Your task to perform on an android device: Search for a coffee table on Crate & Barrel Image 0: 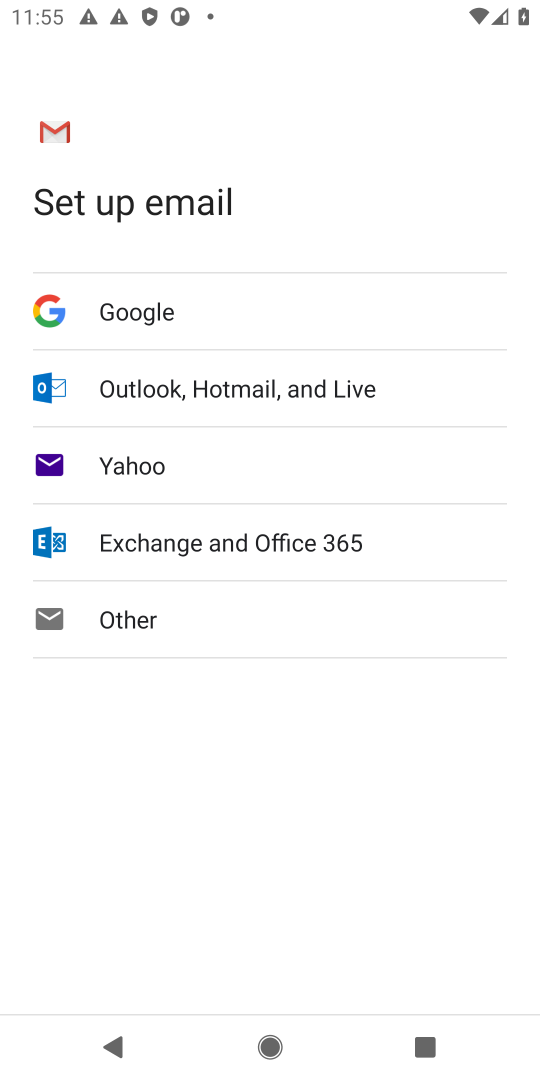
Step 0: press home button
Your task to perform on an android device: Search for a coffee table on Crate & Barrel Image 1: 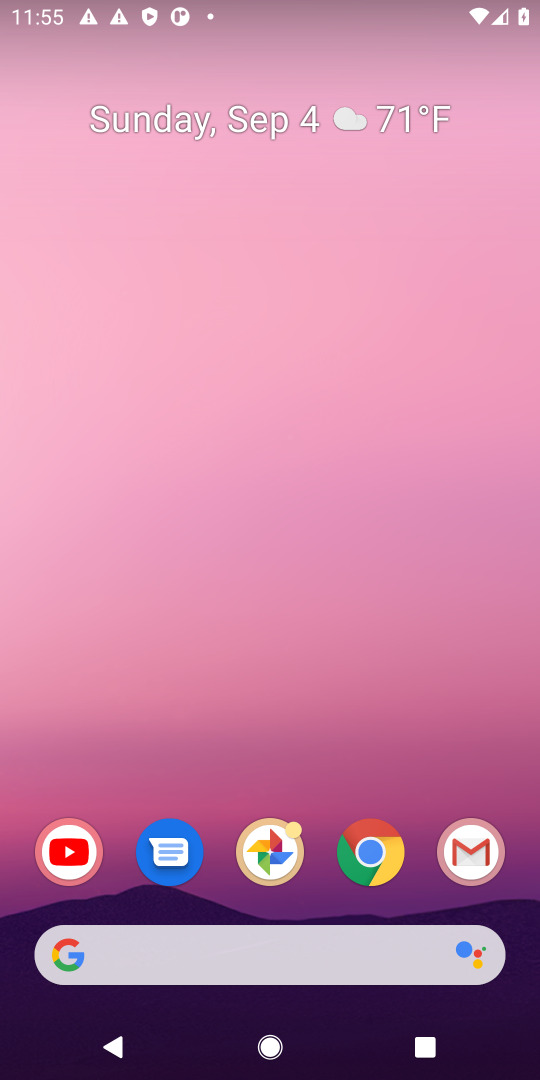
Step 1: click (370, 857)
Your task to perform on an android device: Search for a coffee table on Crate & Barrel Image 2: 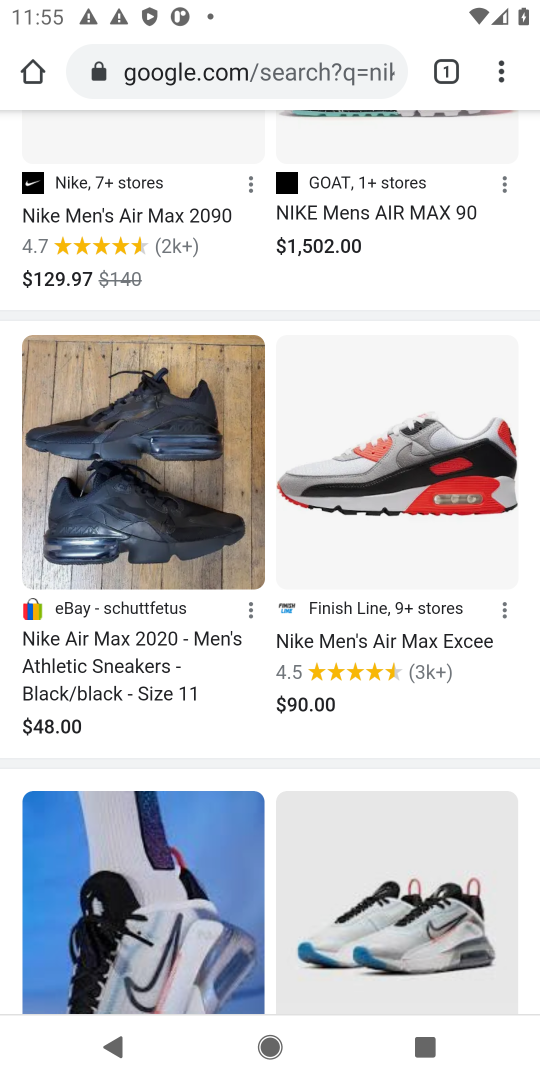
Step 2: click (263, 48)
Your task to perform on an android device: Search for a coffee table on Crate & Barrel Image 3: 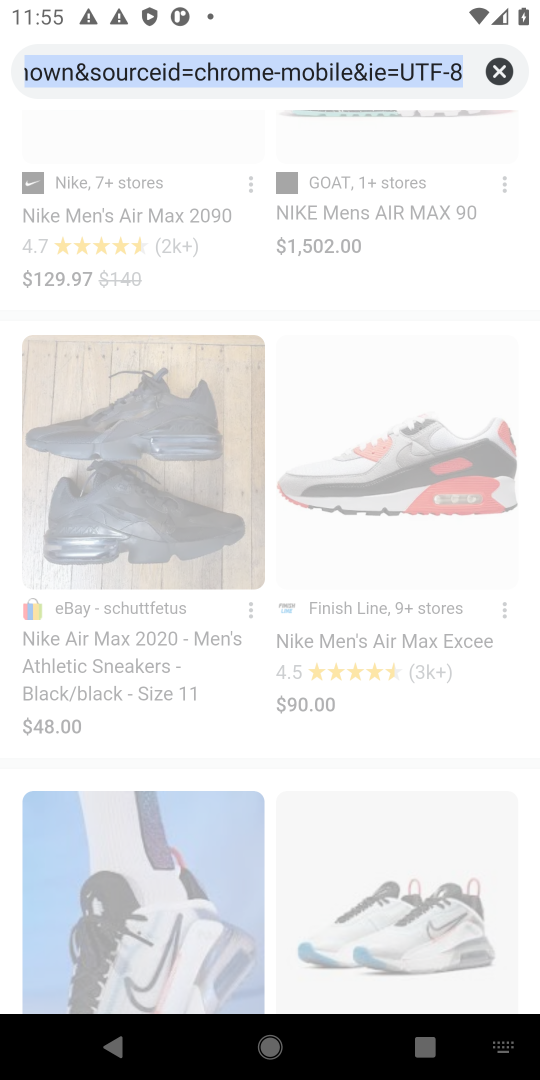
Step 3: click (505, 69)
Your task to perform on an android device: Search for a coffee table on Crate & Barrel Image 4: 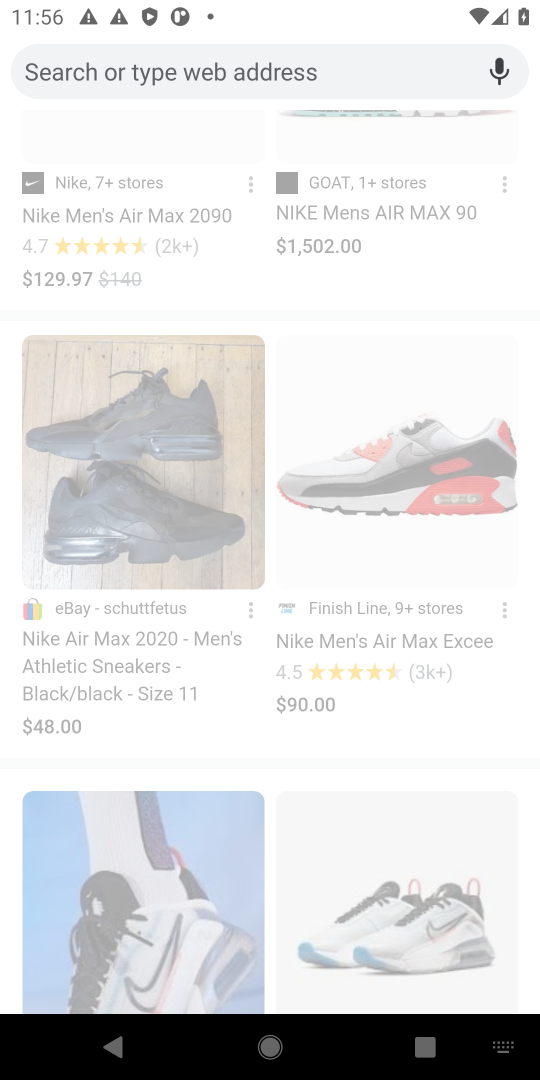
Step 4: type "Crate & Barrel"
Your task to perform on an android device: Search for a coffee table on Crate & Barrel Image 5: 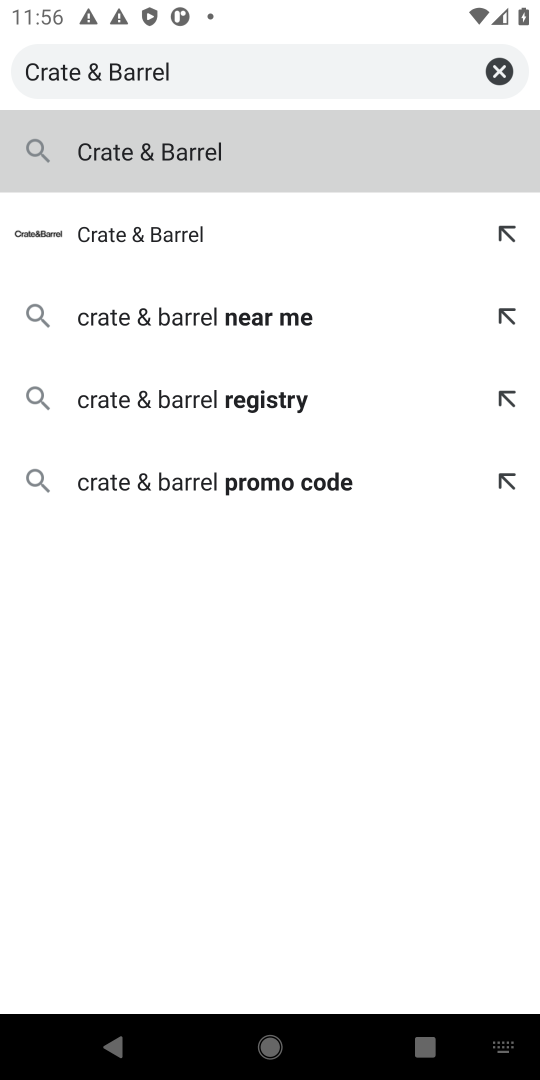
Step 5: click (124, 228)
Your task to perform on an android device: Search for a coffee table on Crate & Barrel Image 6: 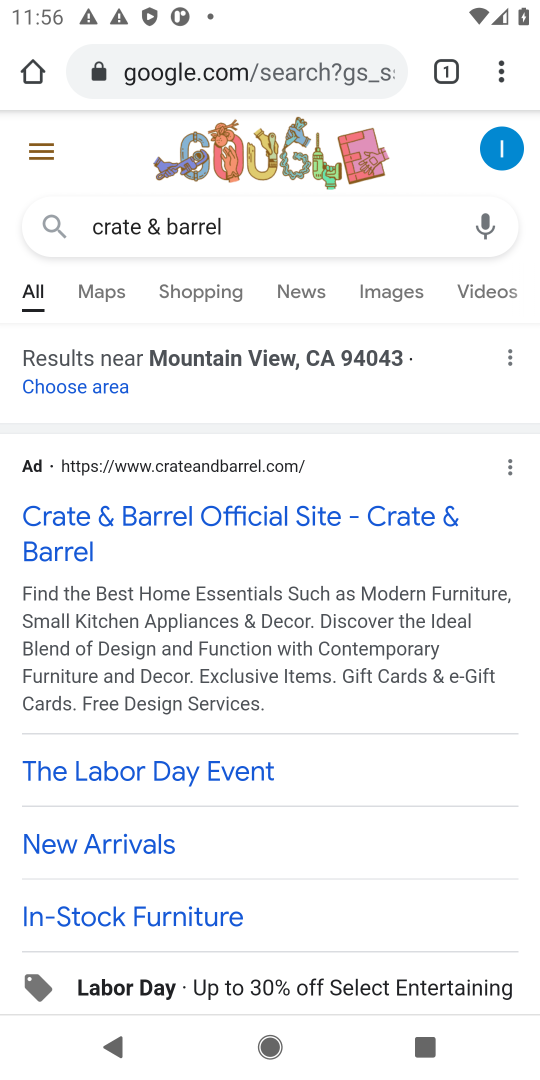
Step 6: click (132, 519)
Your task to perform on an android device: Search for a coffee table on Crate & Barrel Image 7: 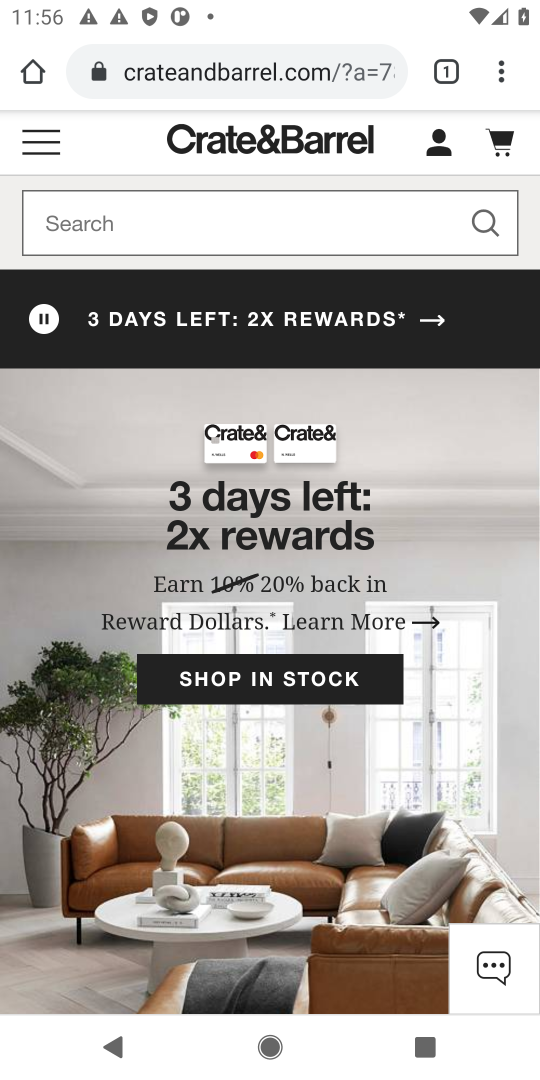
Step 7: click (151, 221)
Your task to perform on an android device: Search for a coffee table on Crate & Barrel Image 8: 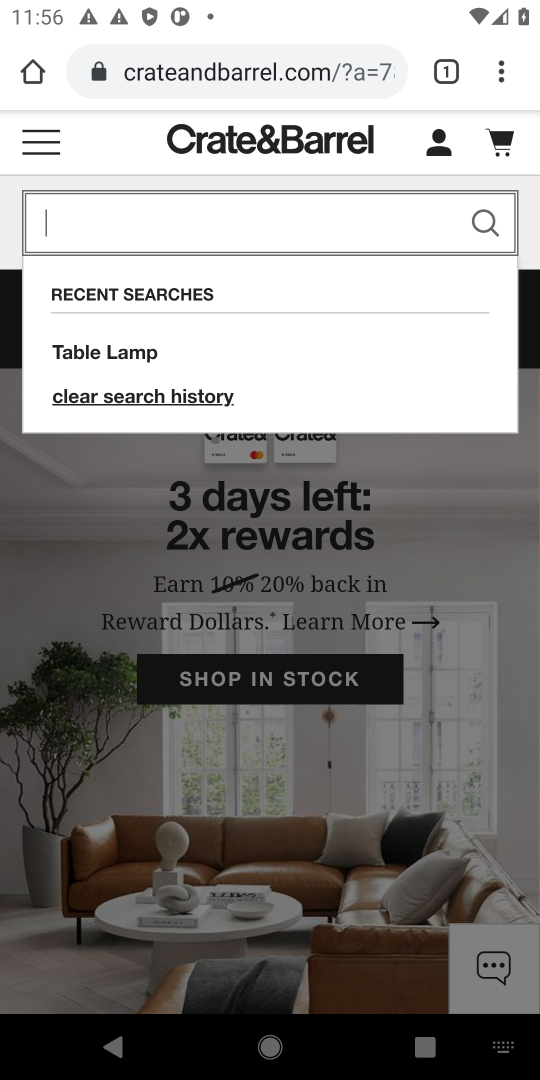
Step 8: type "coffee table"
Your task to perform on an android device: Search for a coffee table on Crate & Barrel Image 9: 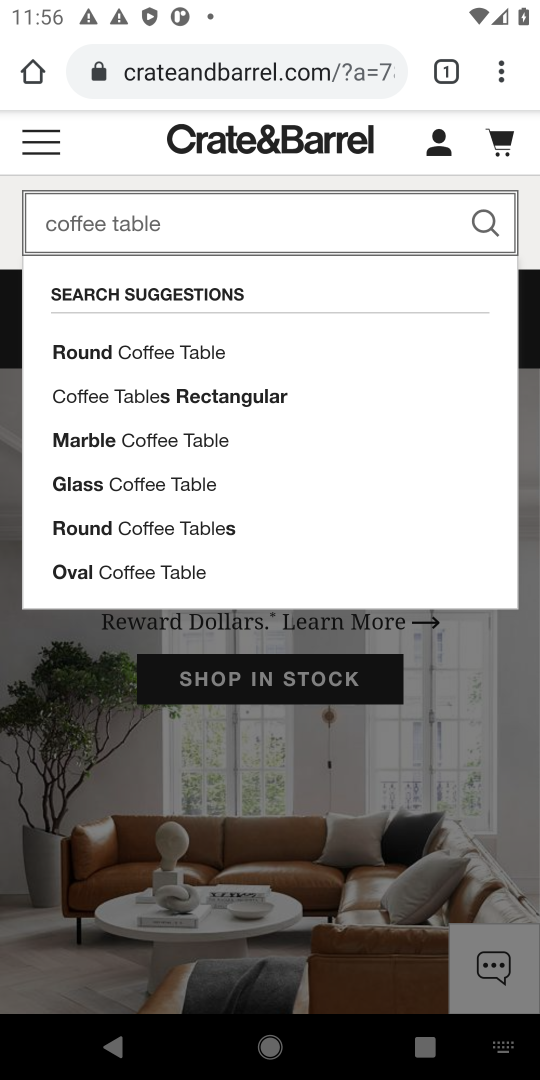
Step 9: click (484, 218)
Your task to perform on an android device: Search for a coffee table on Crate & Barrel Image 10: 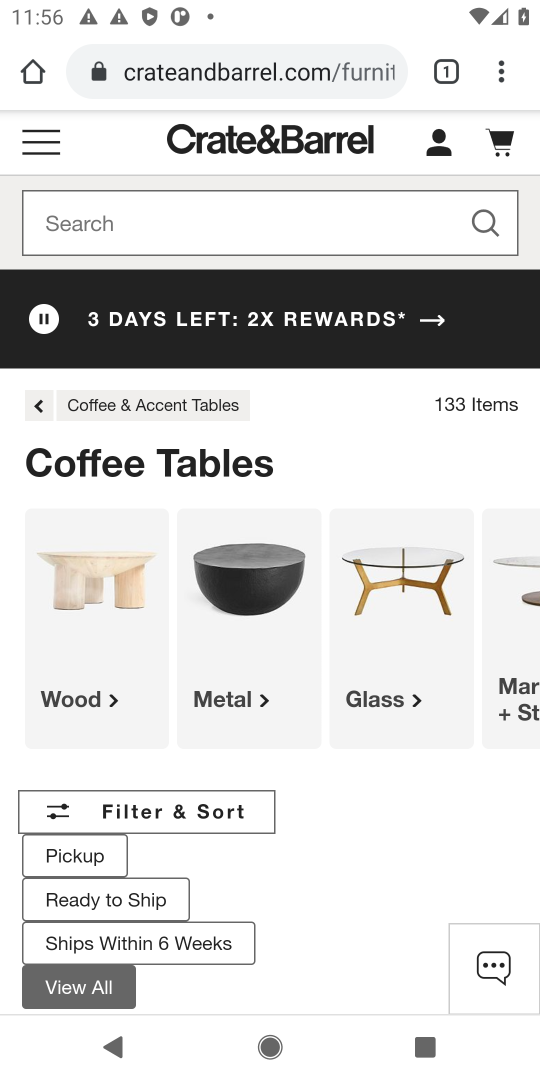
Step 10: drag from (310, 872) to (311, 415)
Your task to perform on an android device: Search for a coffee table on Crate & Barrel Image 11: 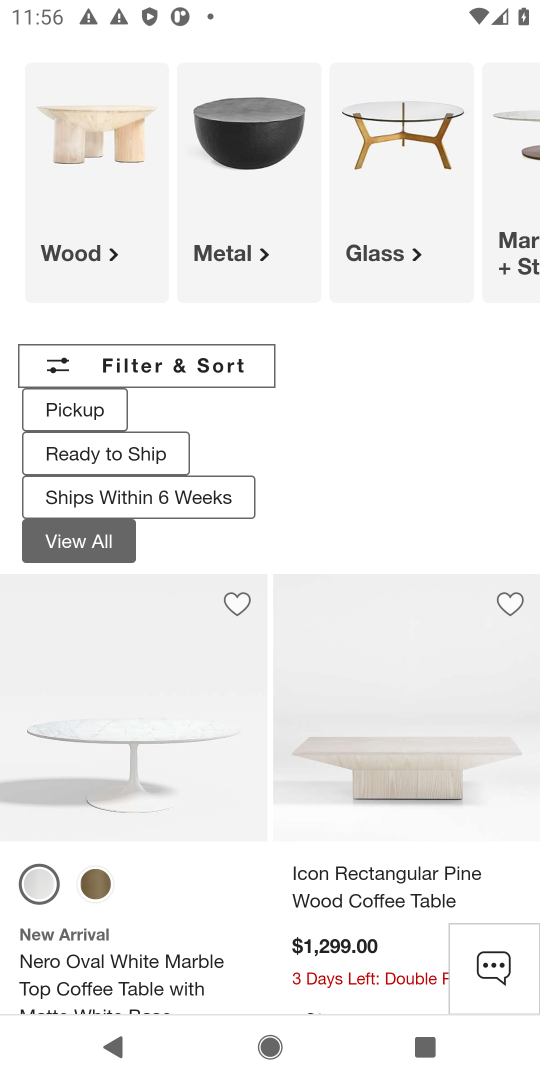
Step 11: drag from (263, 666) to (254, 459)
Your task to perform on an android device: Search for a coffee table on Crate & Barrel Image 12: 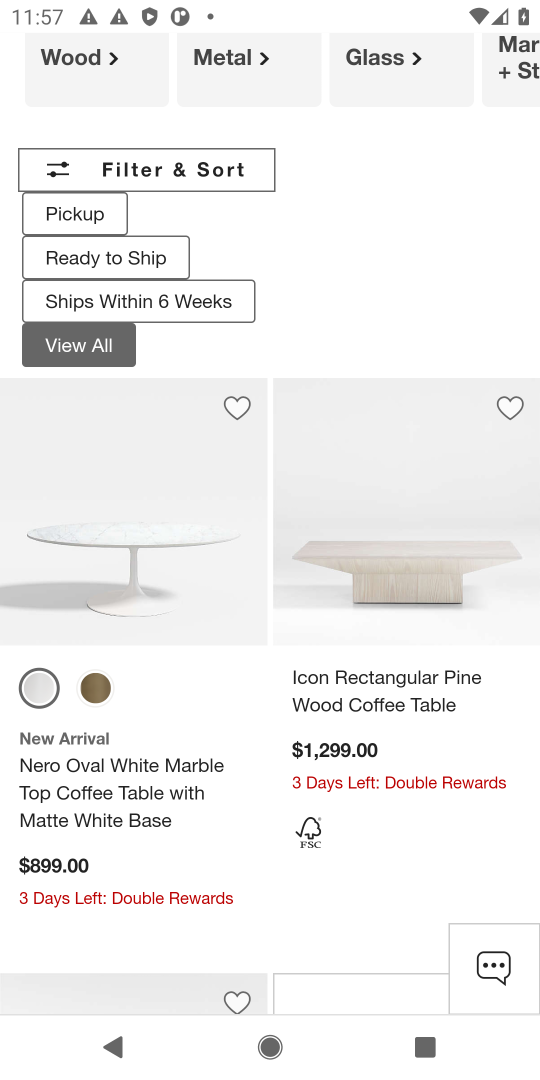
Step 12: drag from (279, 926) to (288, 426)
Your task to perform on an android device: Search for a coffee table on Crate & Barrel Image 13: 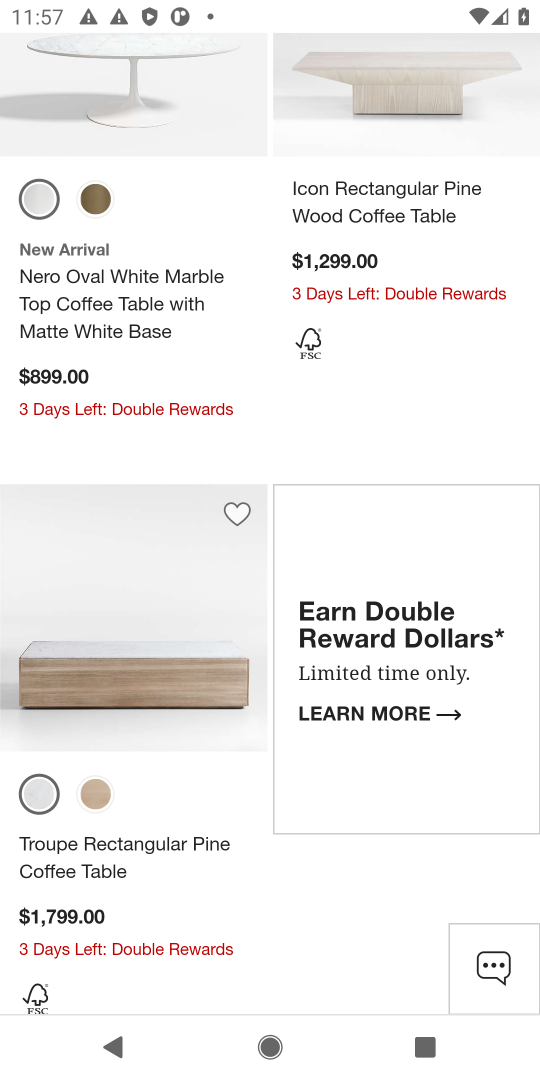
Step 13: click (282, 346)
Your task to perform on an android device: Search for a coffee table on Crate & Barrel Image 14: 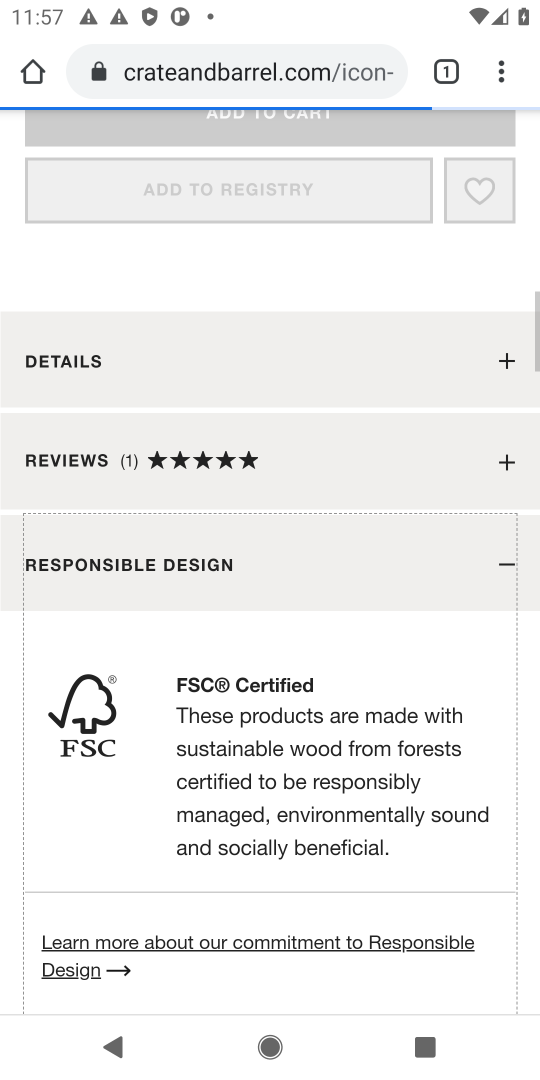
Step 14: task complete